Your task to perform on an android device: Empty the shopping cart on costco.com. Add "razer naga" to the cart on costco.com, then select checkout. Image 0: 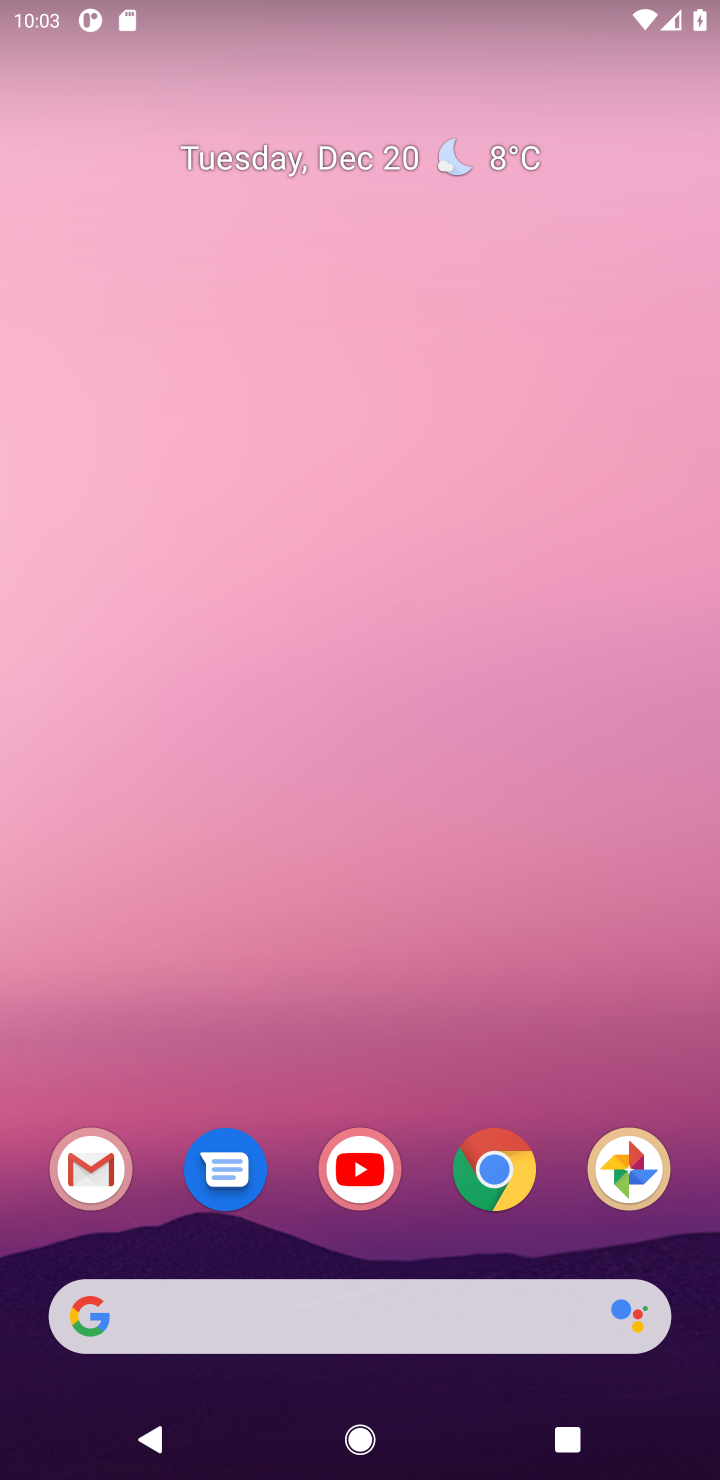
Step 0: click (497, 1161)
Your task to perform on an android device: Empty the shopping cart on costco.com. Add "razer naga" to the cart on costco.com, then select checkout. Image 1: 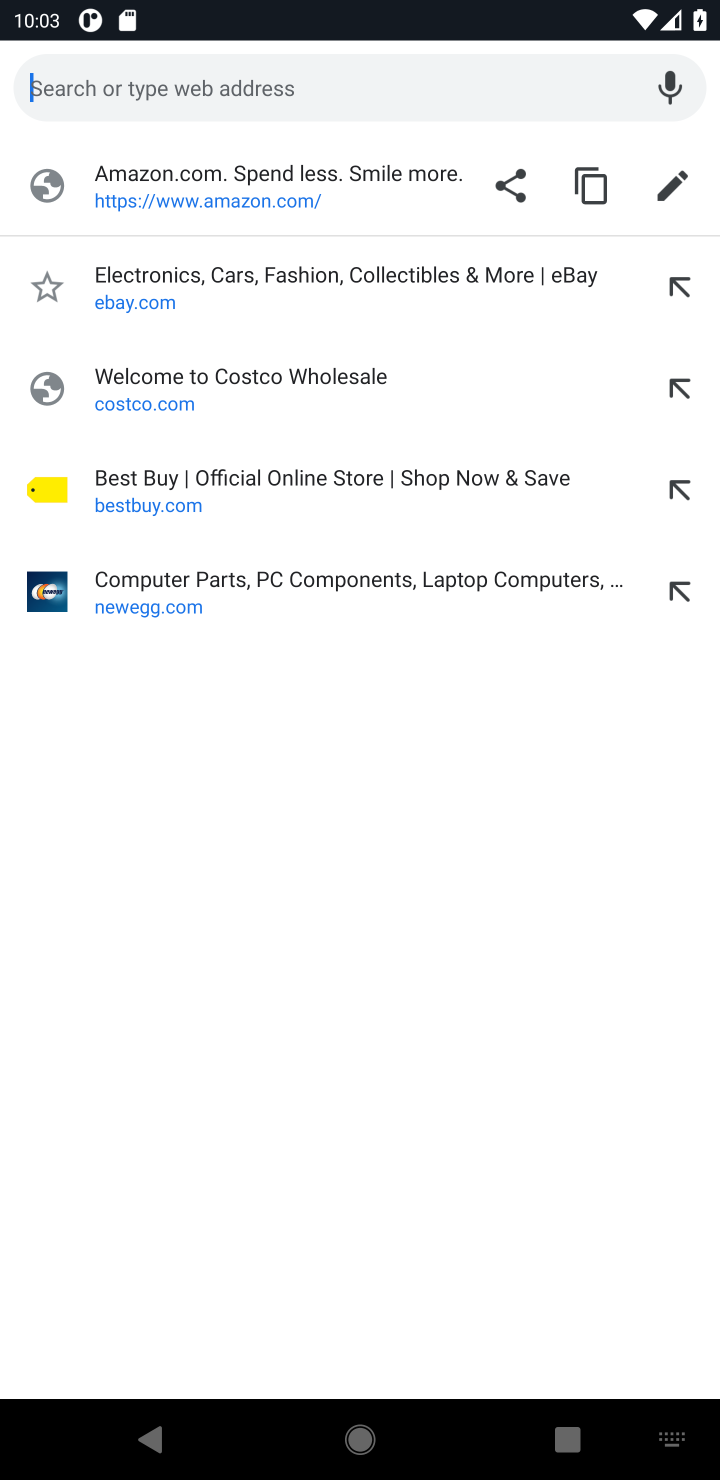
Step 1: click (156, 94)
Your task to perform on an android device: Empty the shopping cart on costco.com. Add "razer naga" to the cart on costco.com, then select checkout. Image 2: 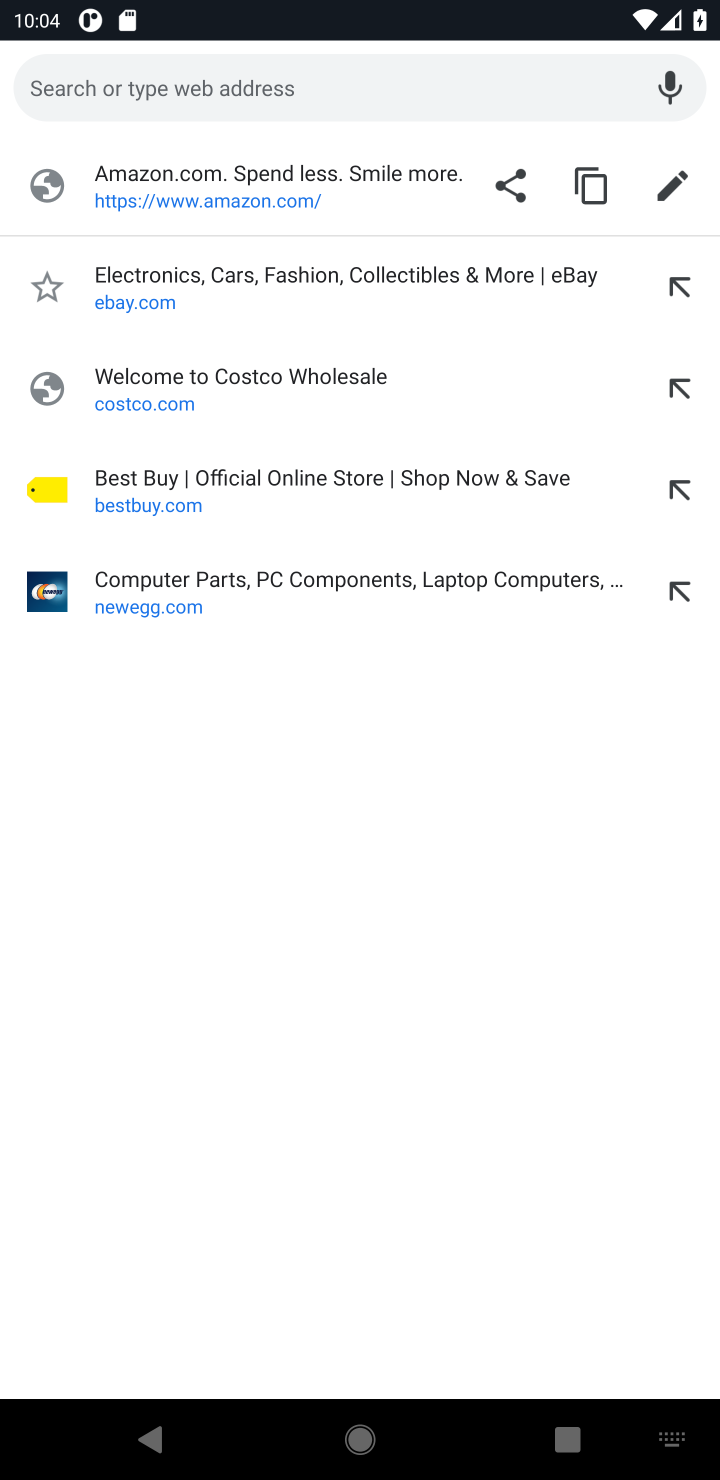
Step 2: click (184, 374)
Your task to perform on an android device: Empty the shopping cart on costco.com. Add "razer naga" to the cart on costco.com, then select checkout. Image 3: 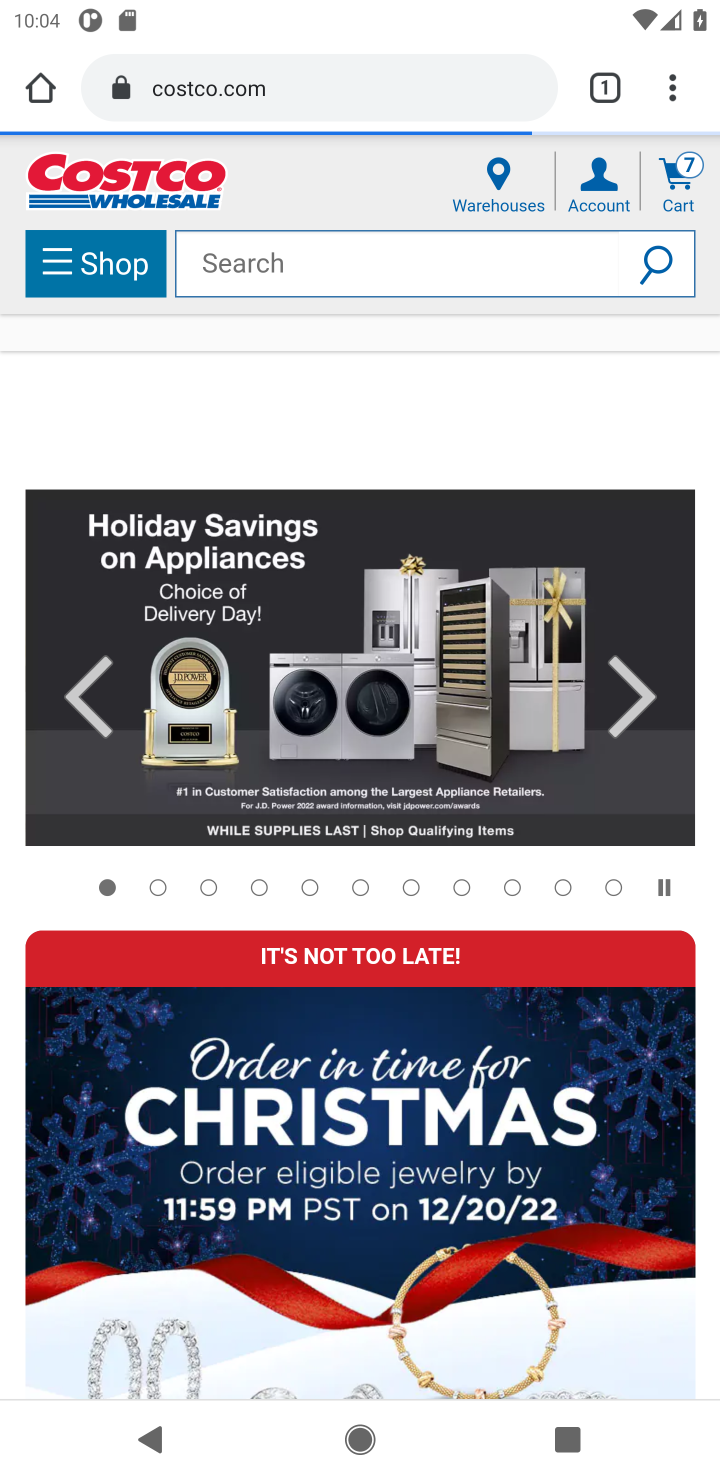
Step 3: click (337, 278)
Your task to perform on an android device: Empty the shopping cart on costco.com. Add "razer naga" to the cart on costco.com, then select checkout. Image 4: 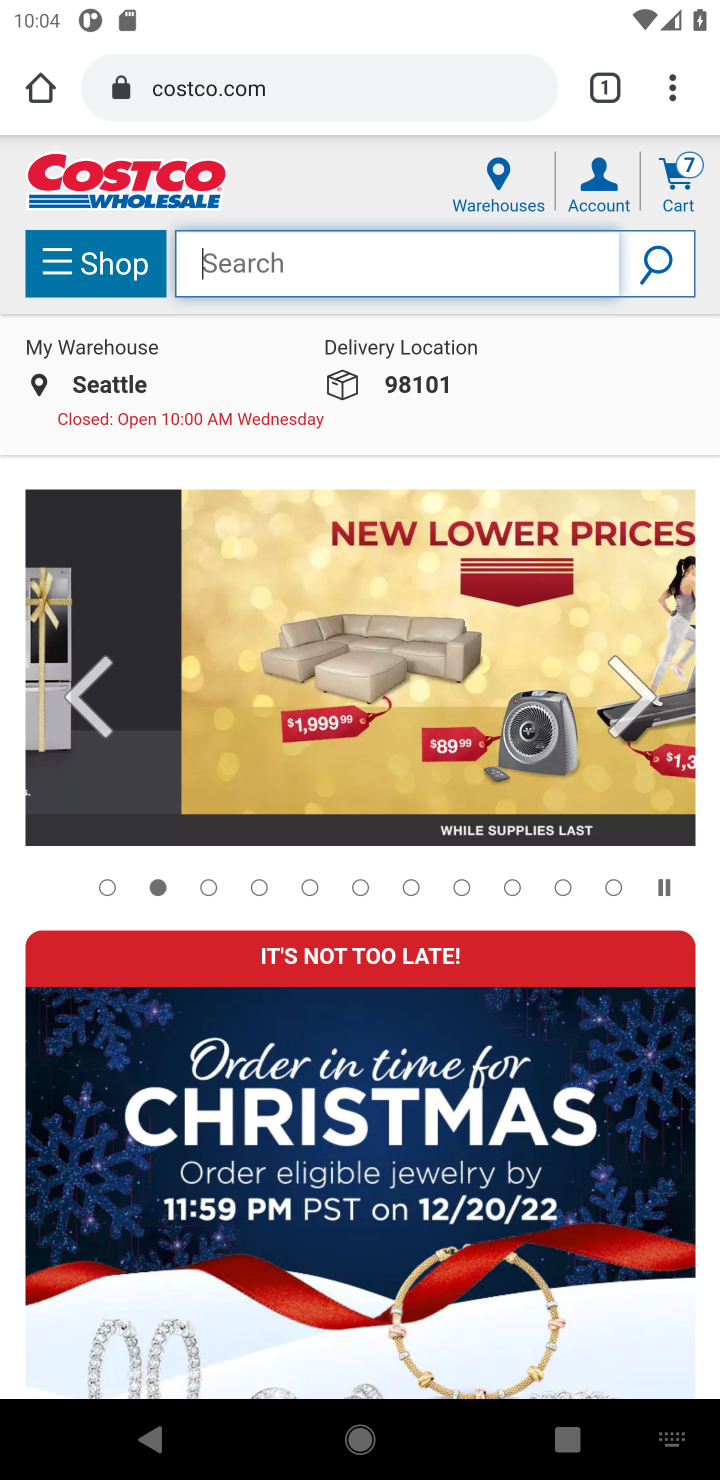
Step 4: type "razer naga"
Your task to perform on an android device: Empty the shopping cart on costco.com. Add "razer naga" to the cart on costco.com, then select checkout. Image 5: 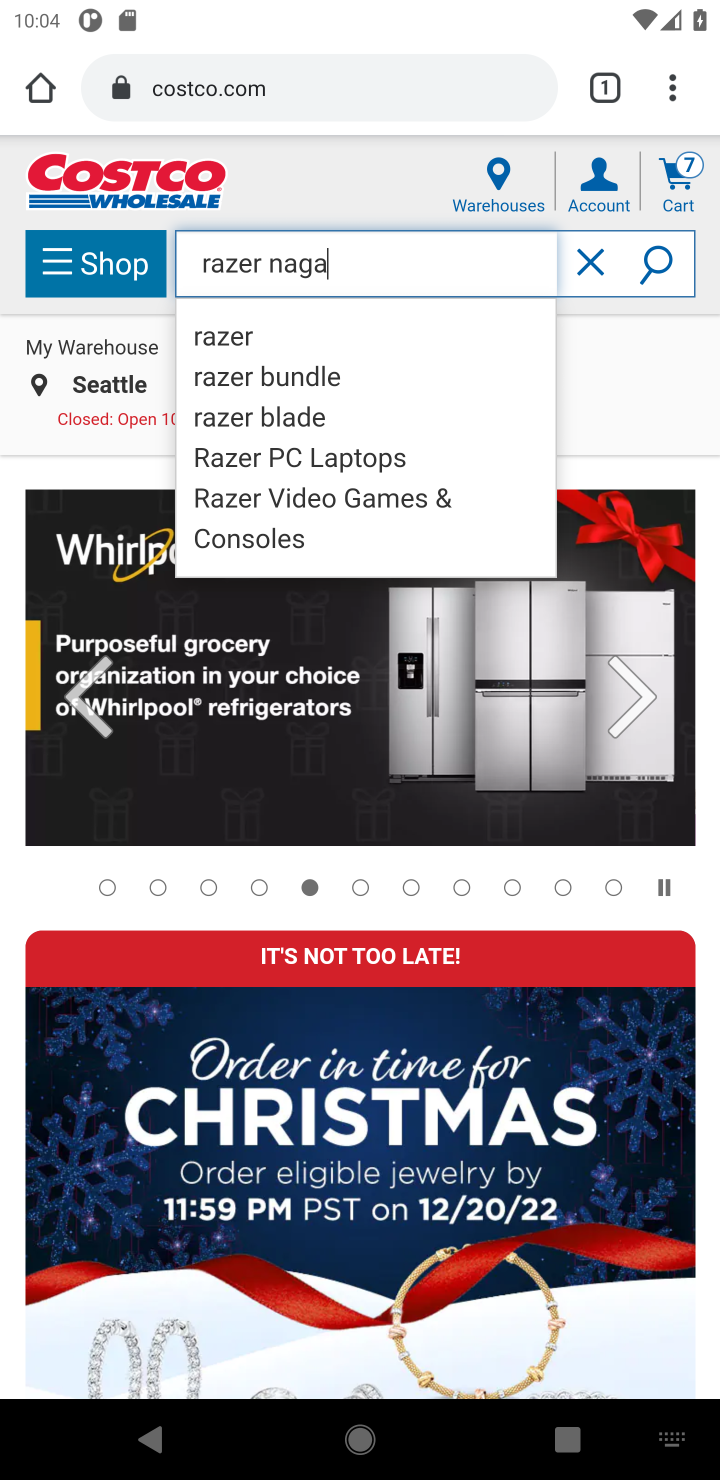
Step 5: click (673, 285)
Your task to perform on an android device: Empty the shopping cart on costco.com. Add "razer naga" to the cart on costco.com, then select checkout. Image 6: 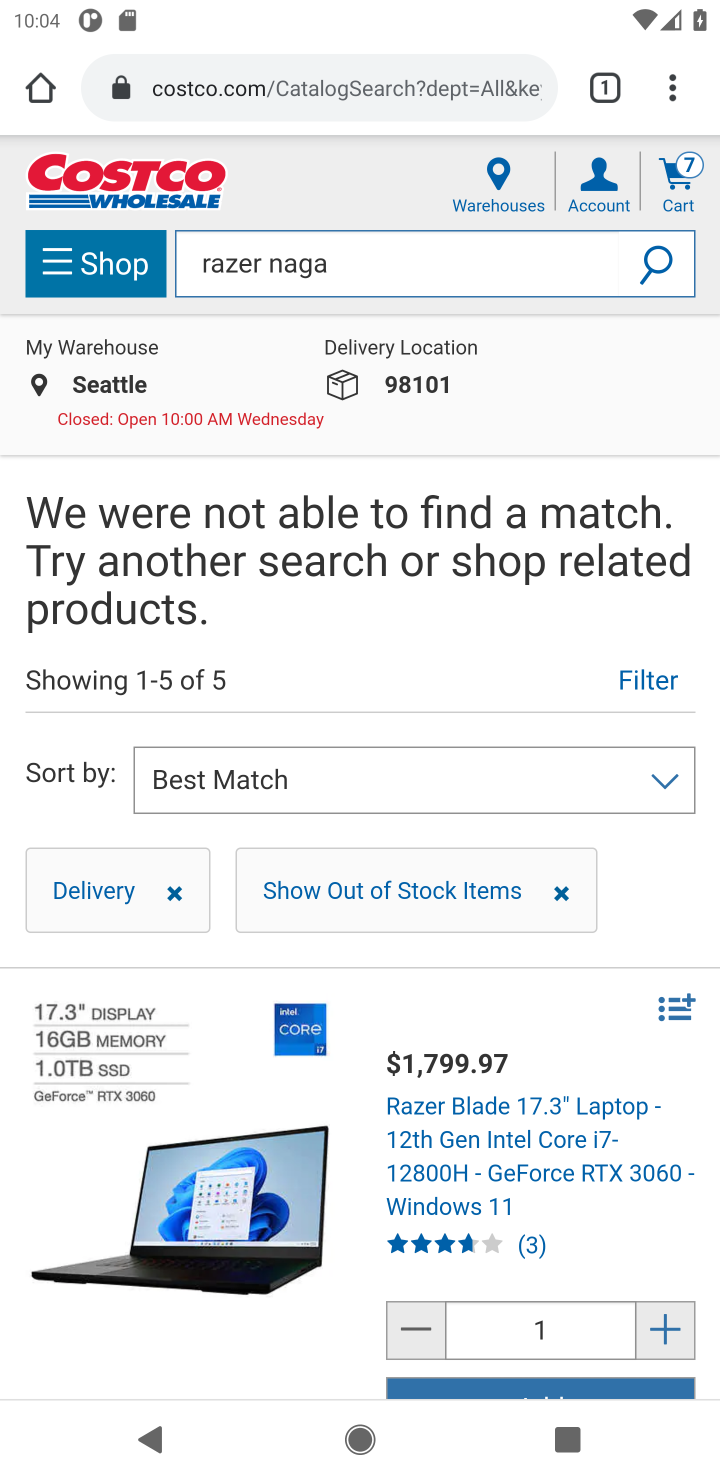
Step 6: click (568, 1388)
Your task to perform on an android device: Empty the shopping cart on costco.com. Add "razer naga" to the cart on costco.com, then select checkout. Image 7: 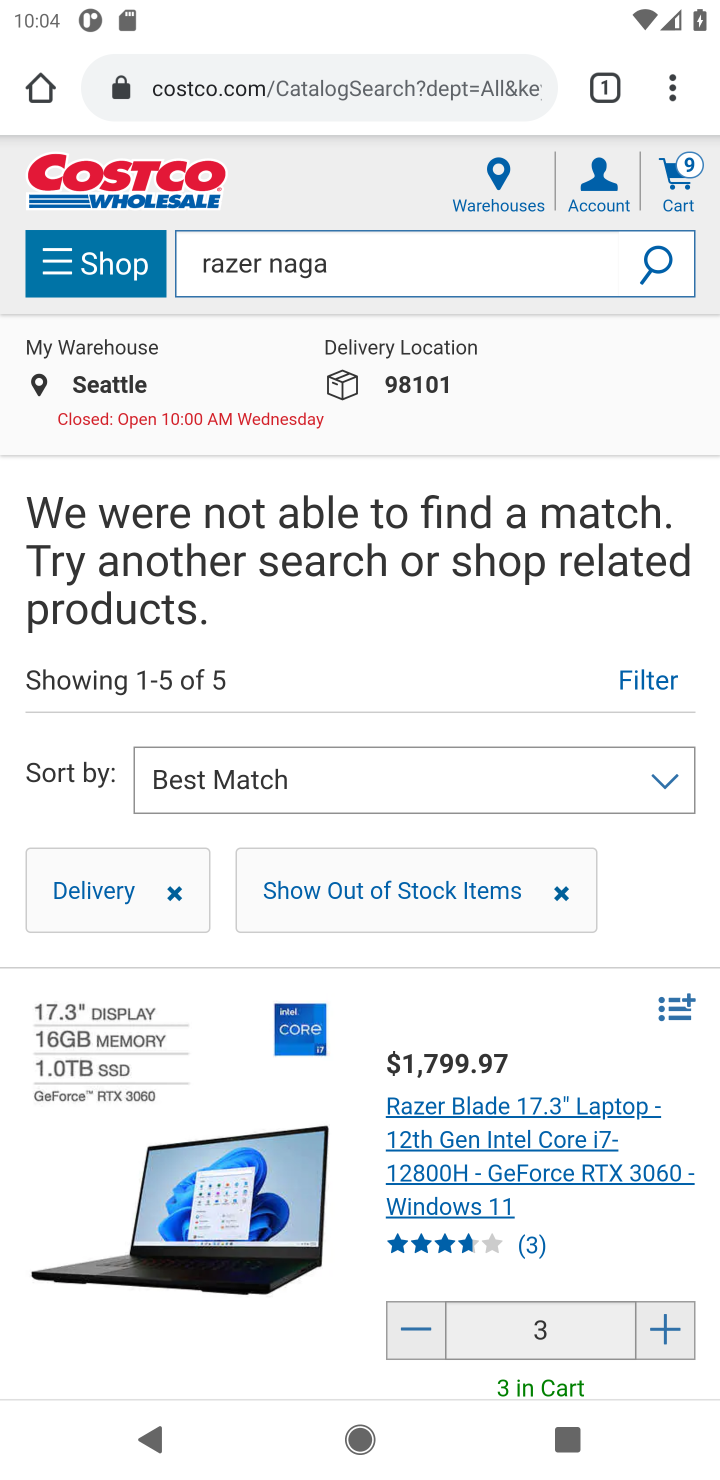
Step 7: task complete